Your task to perform on an android device: Go to wifi settings Image 0: 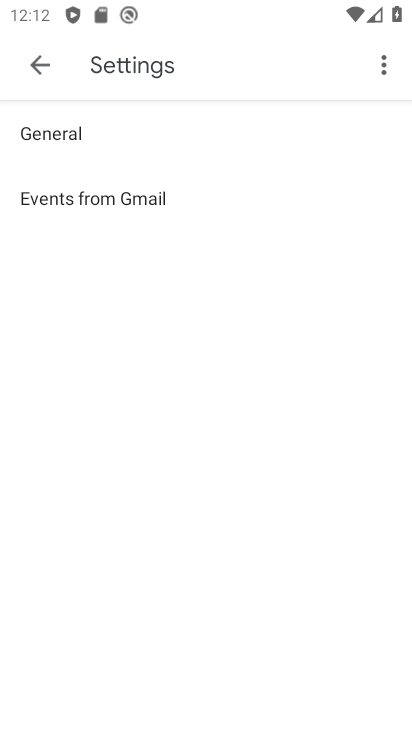
Step 0: press home button
Your task to perform on an android device: Go to wifi settings Image 1: 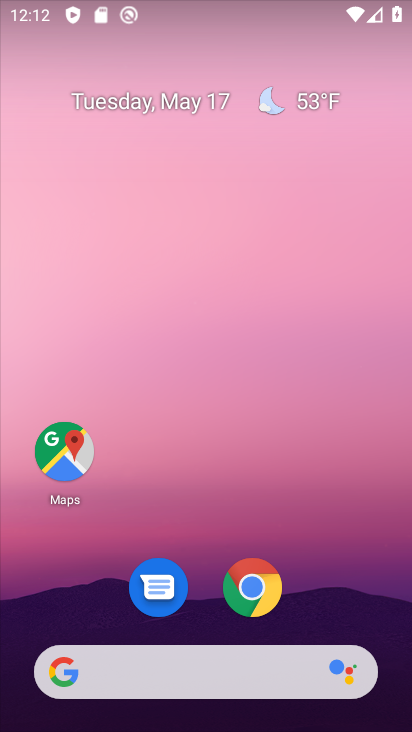
Step 1: drag from (212, 604) to (263, 1)
Your task to perform on an android device: Go to wifi settings Image 2: 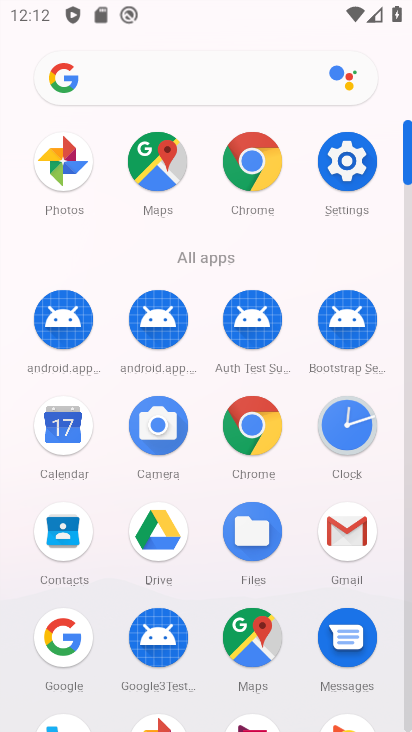
Step 2: click (358, 184)
Your task to perform on an android device: Go to wifi settings Image 3: 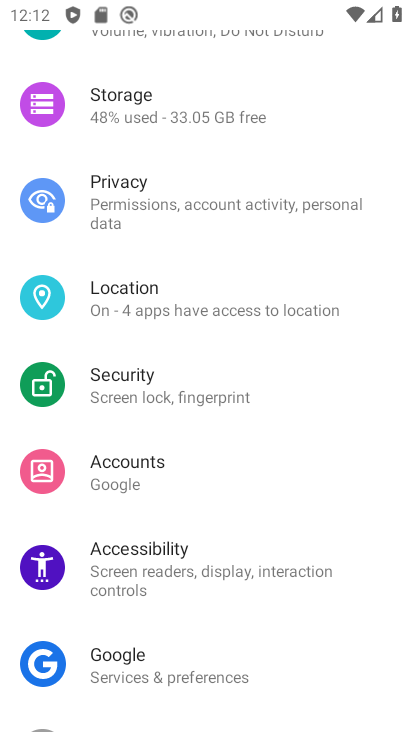
Step 3: drag from (207, 149) to (211, 584)
Your task to perform on an android device: Go to wifi settings Image 4: 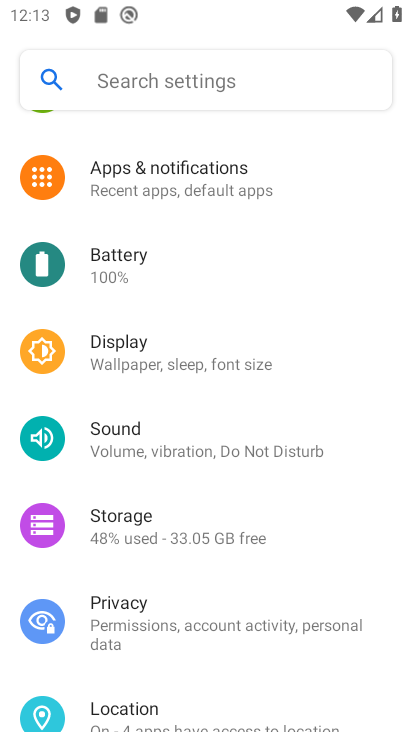
Step 4: drag from (211, 217) to (240, 684)
Your task to perform on an android device: Go to wifi settings Image 5: 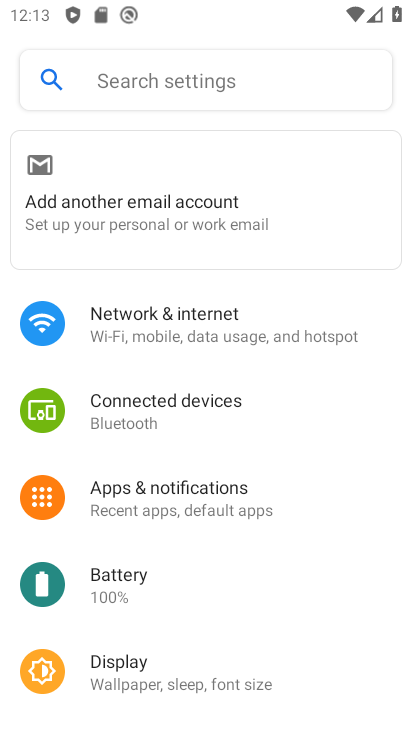
Step 5: click (184, 333)
Your task to perform on an android device: Go to wifi settings Image 6: 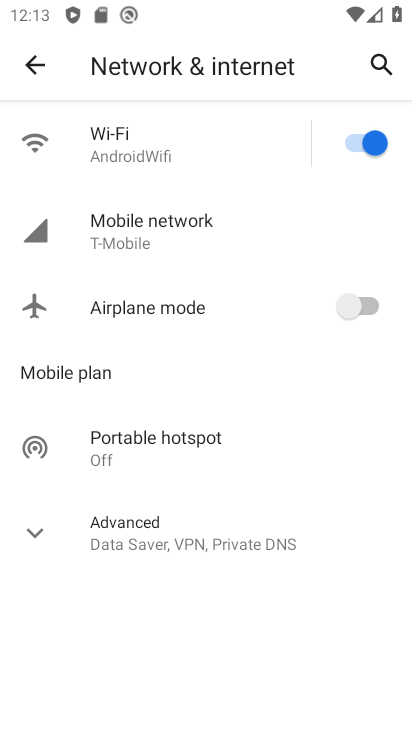
Step 6: click (131, 131)
Your task to perform on an android device: Go to wifi settings Image 7: 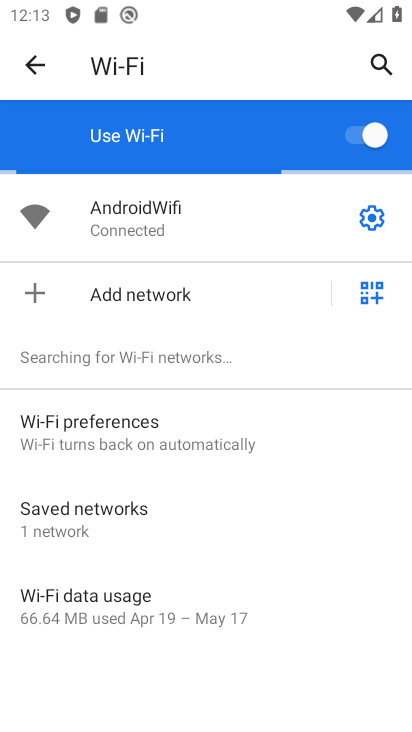
Step 7: task complete